Your task to perform on an android device: When is my next meeting? Image 0: 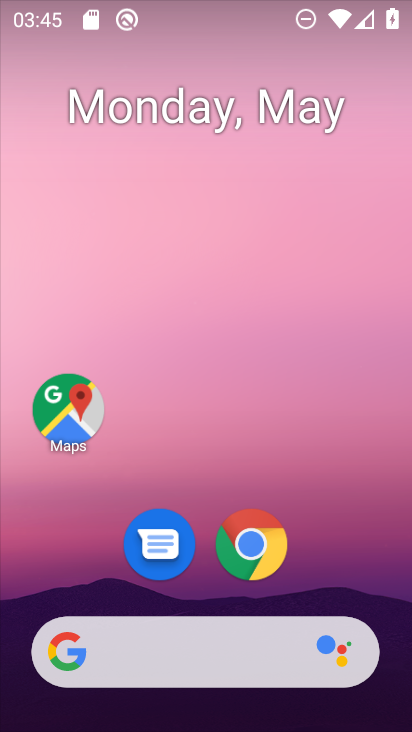
Step 0: drag from (368, 590) to (364, 203)
Your task to perform on an android device: When is my next meeting? Image 1: 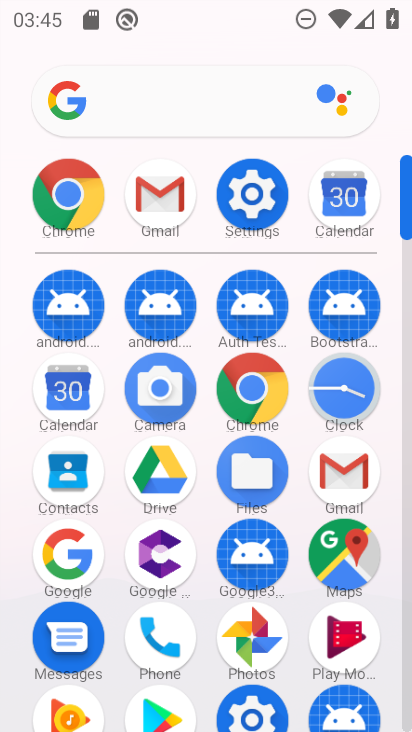
Step 1: click (56, 406)
Your task to perform on an android device: When is my next meeting? Image 2: 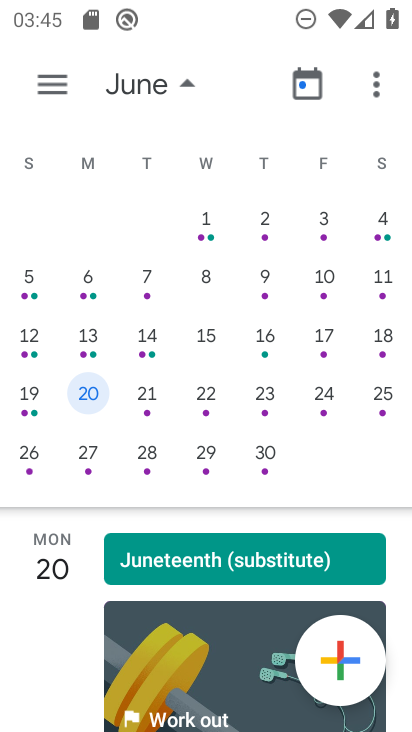
Step 2: drag from (44, 197) to (411, 421)
Your task to perform on an android device: When is my next meeting? Image 3: 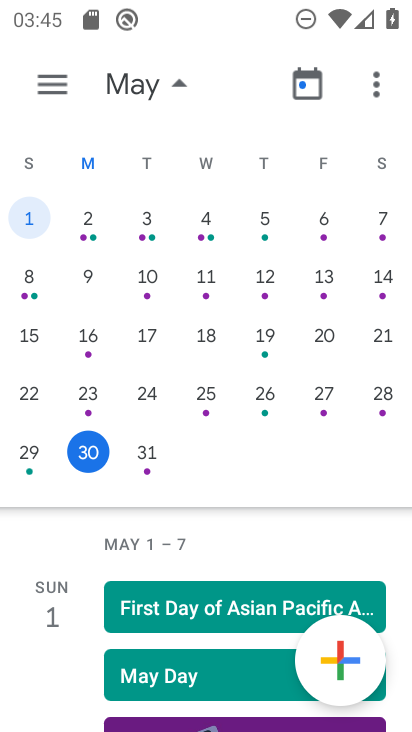
Step 3: click (149, 452)
Your task to perform on an android device: When is my next meeting? Image 4: 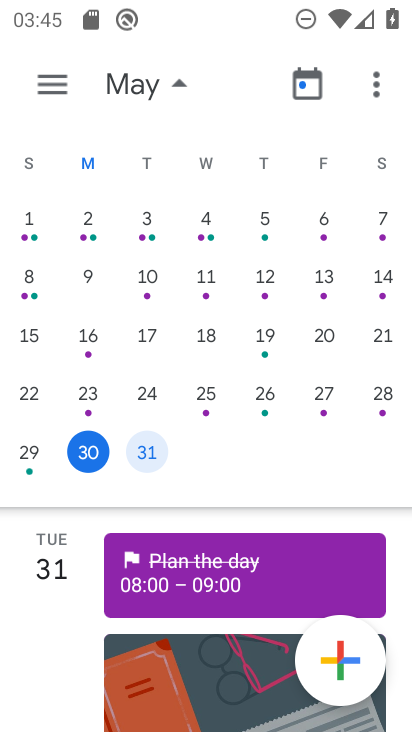
Step 4: click (243, 558)
Your task to perform on an android device: When is my next meeting? Image 5: 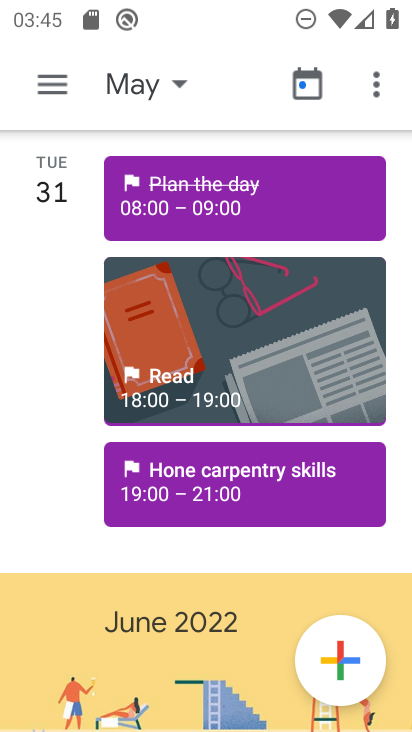
Step 5: click (195, 203)
Your task to perform on an android device: When is my next meeting? Image 6: 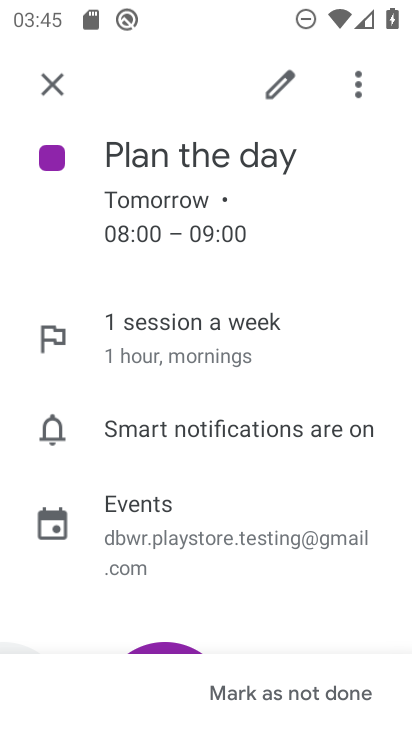
Step 6: task complete